Your task to perform on an android device: Open Chrome and go to the settings page Image 0: 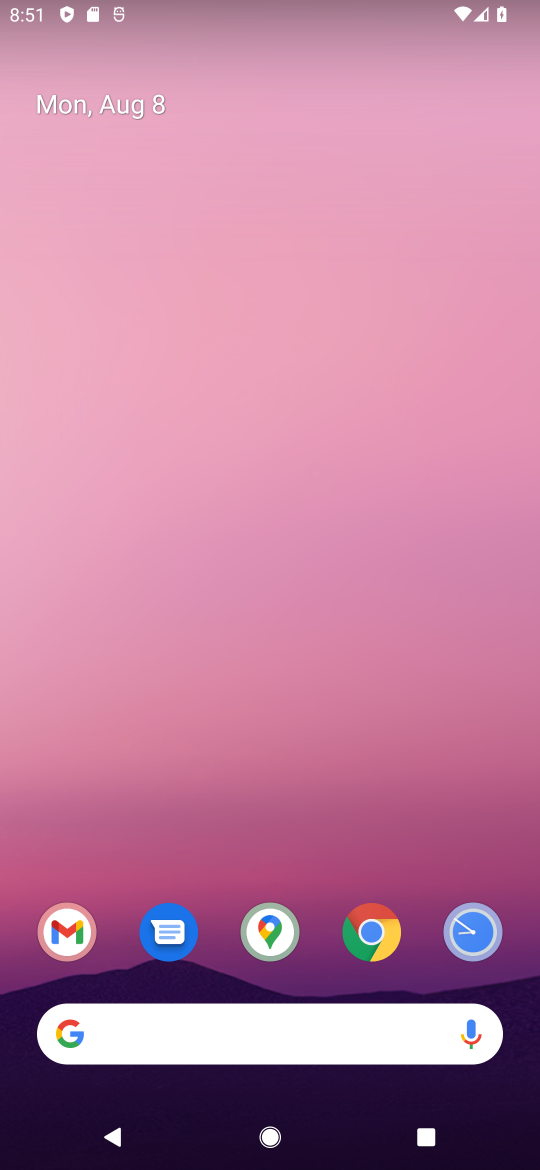
Step 0: click (384, 935)
Your task to perform on an android device: Open Chrome and go to the settings page Image 1: 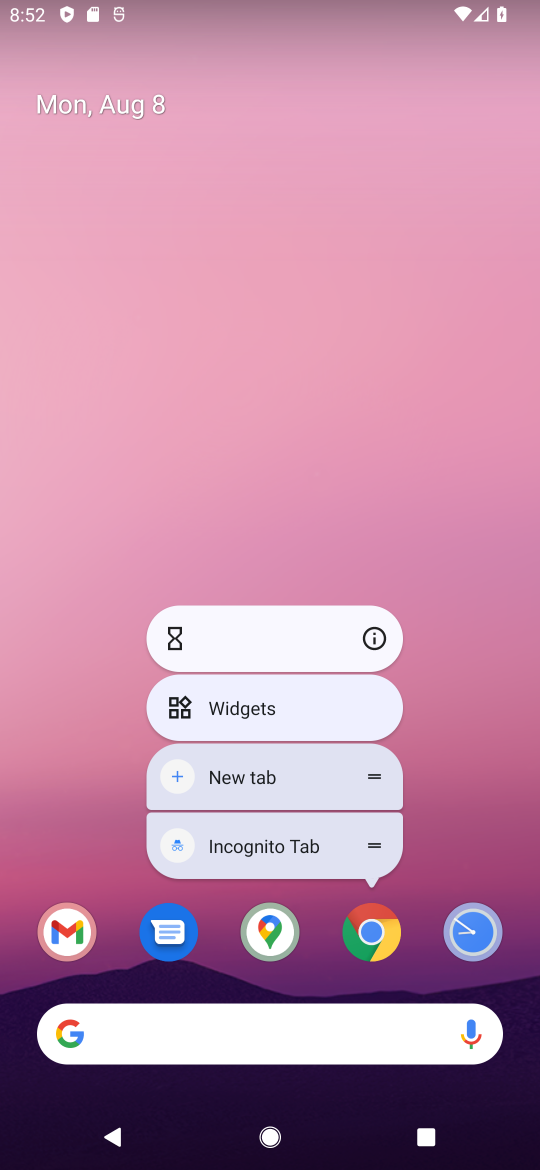
Step 1: click (375, 930)
Your task to perform on an android device: Open Chrome and go to the settings page Image 2: 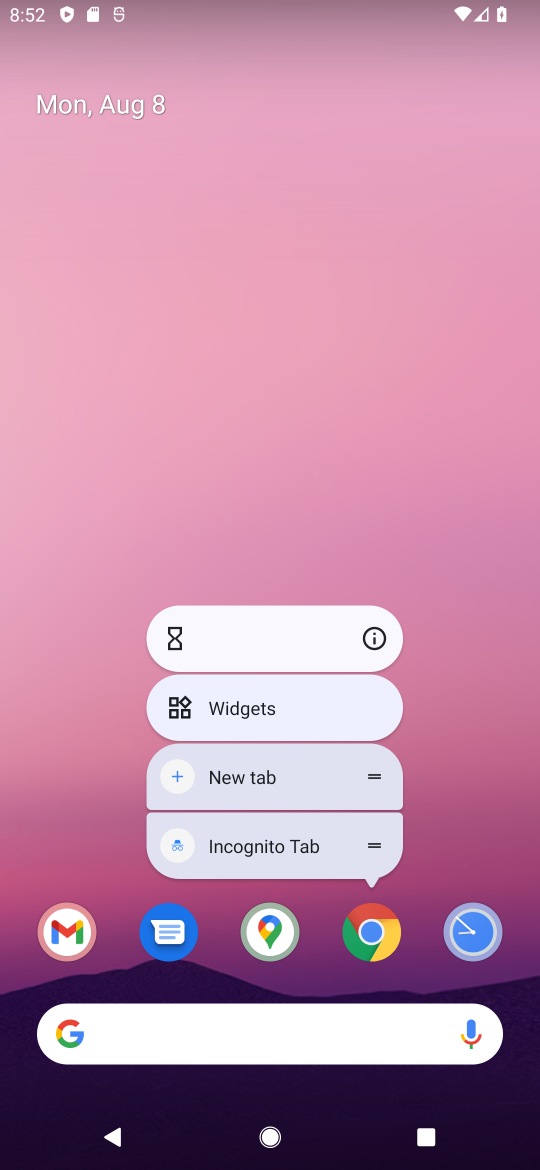
Step 2: click (375, 930)
Your task to perform on an android device: Open Chrome and go to the settings page Image 3: 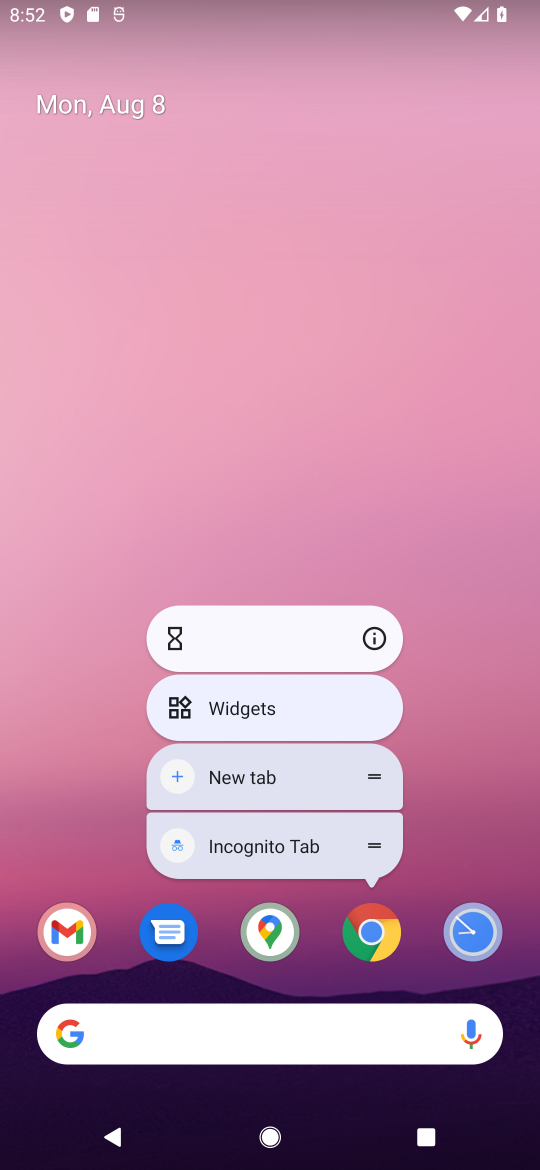
Step 3: click (375, 930)
Your task to perform on an android device: Open Chrome and go to the settings page Image 4: 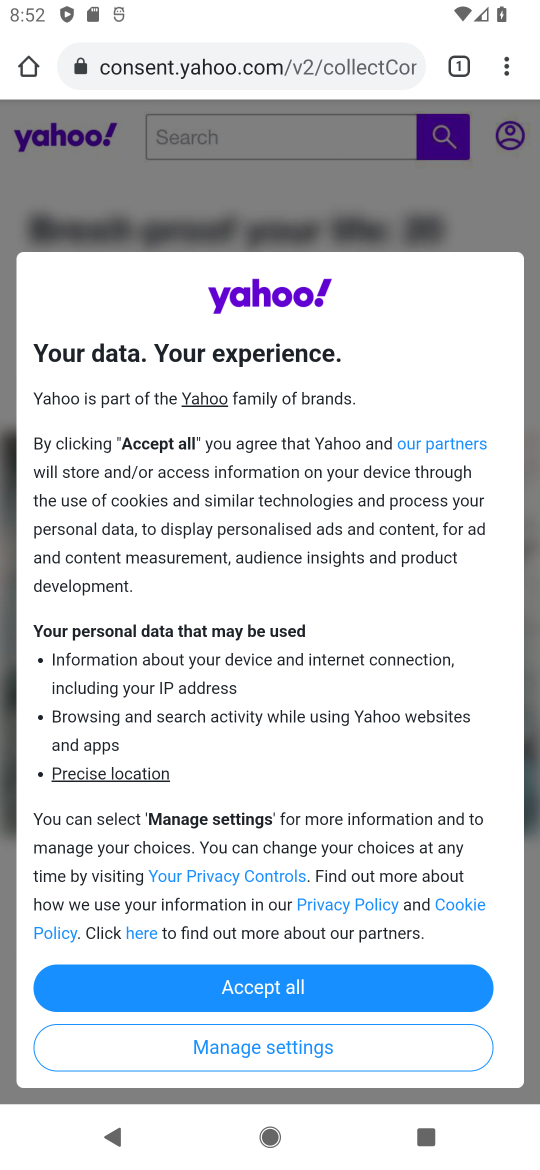
Step 4: task complete